Your task to perform on an android device: Open CNN.com Image 0: 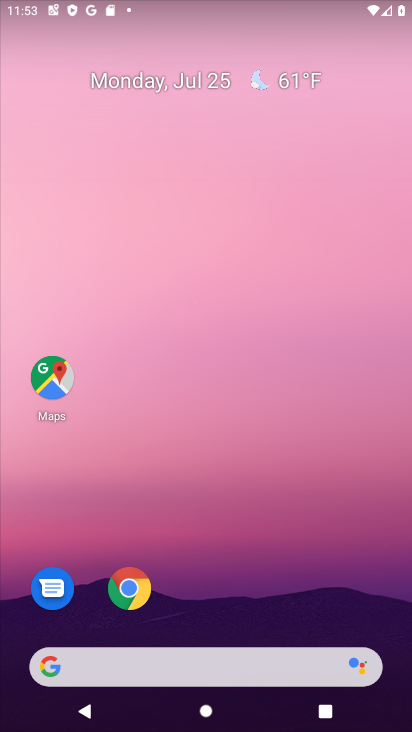
Step 0: click (136, 579)
Your task to perform on an android device: Open CNN.com Image 1: 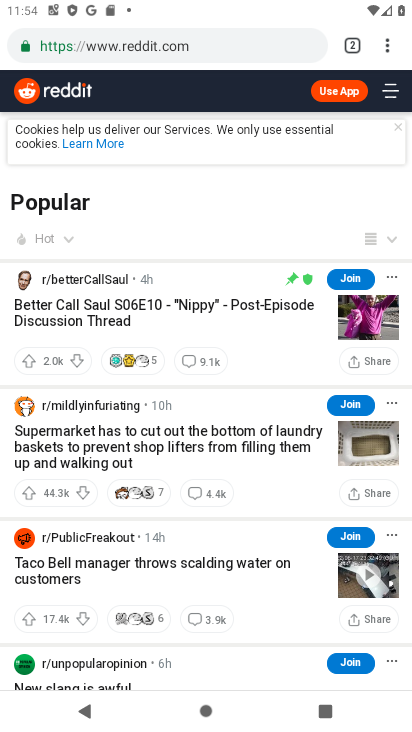
Step 1: click (353, 38)
Your task to perform on an android device: Open CNN.com Image 2: 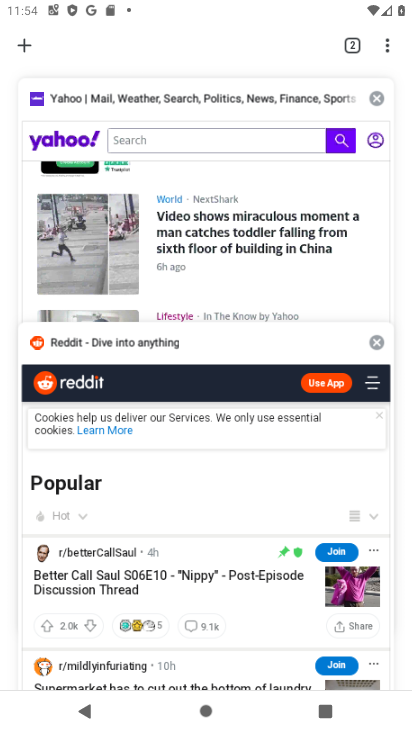
Step 2: click (28, 43)
Your task to perform on an android device: Open CNN.com Image 3: 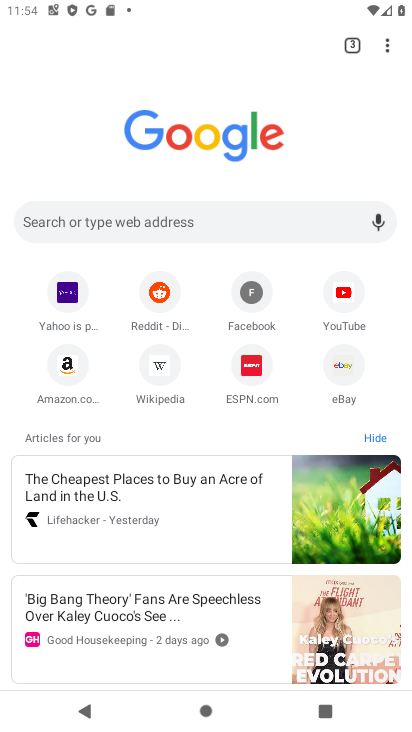
Step 3: click (174, 221)
Your task to perform on an android device: Open CNN.com Image 4: 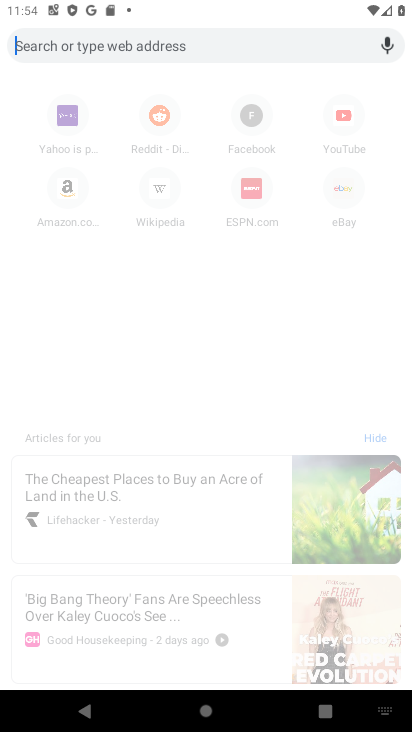
Step 4: type "cnn.com"
Your task to perform on an android device: Open CNN.com Image 5: 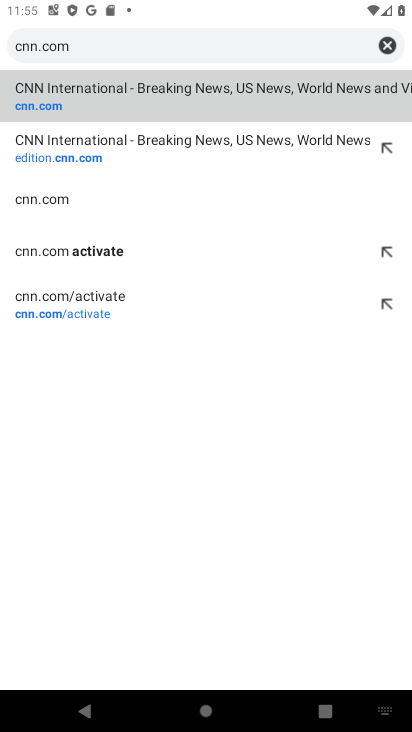
Step 5: click (66, 97)
Your task to perform on an android device: Open CNN.com Image 6: 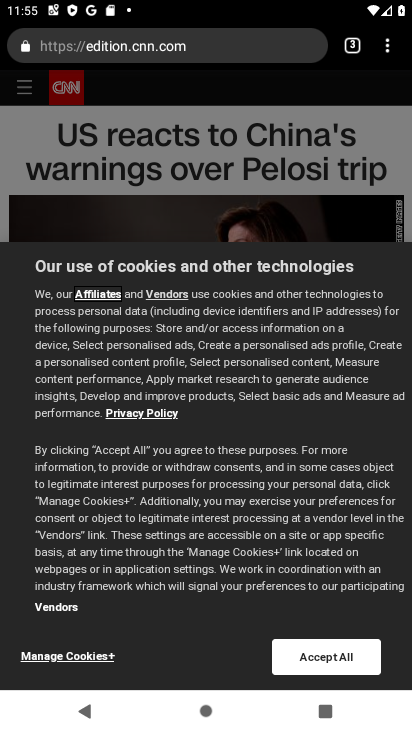
Step 6: click (334, 656)
Your task to perform on an android device: Open CNN.com Image 7: 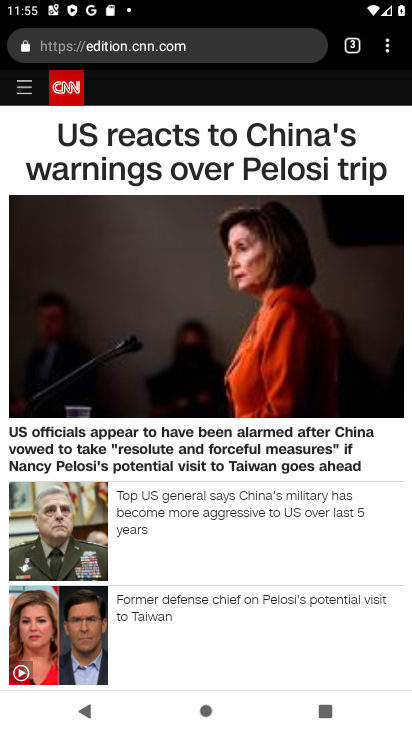
Step 7: task complete